Your task to perform on an android device: turn on javascript in the chrome app Image 0: 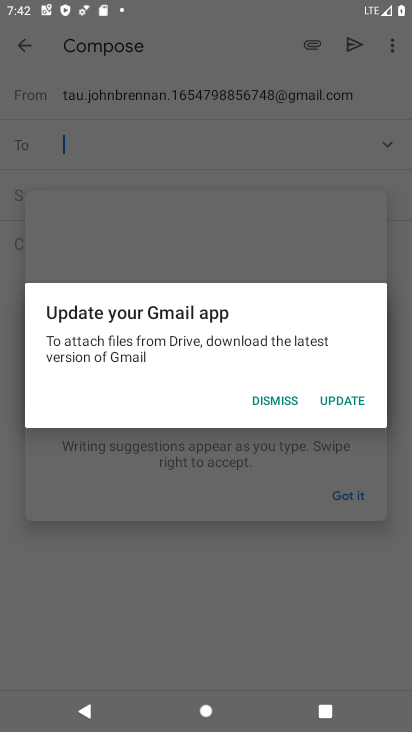
Step 0: press home button
Your task to perform on an android device: turn on javascript in the chrome app Image 1: 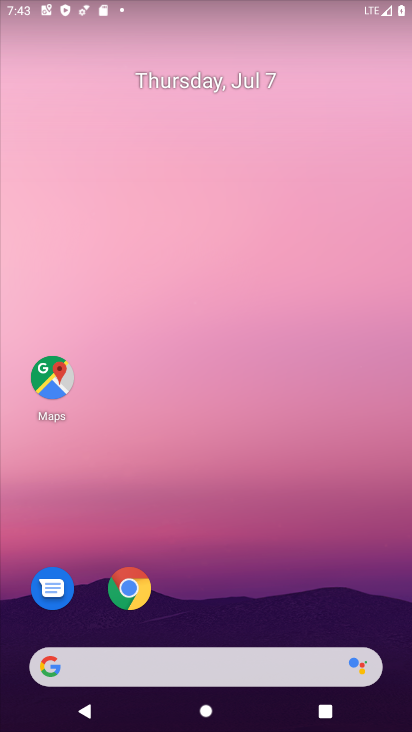
Step 1: drag from (239, 554) to (265, 155)
Your task to perform on an android device: turn on javascript in the chrome app Image 2: 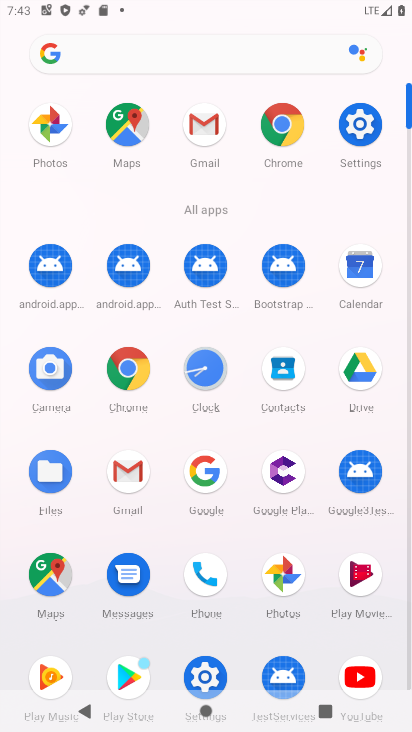
Step 2: click (282, 113)
Your task to perform on an android device: turn on javascript in the chrome app Image 3: 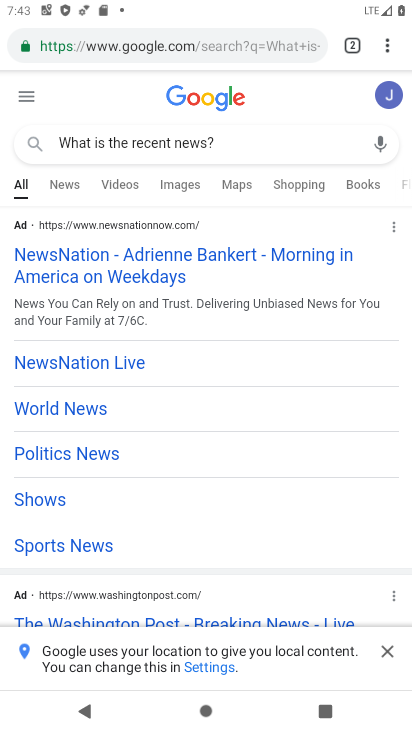
Step 3: click (392, 48)
Your task to perform on an android device: turn on javascript in the chrome app Image 4: 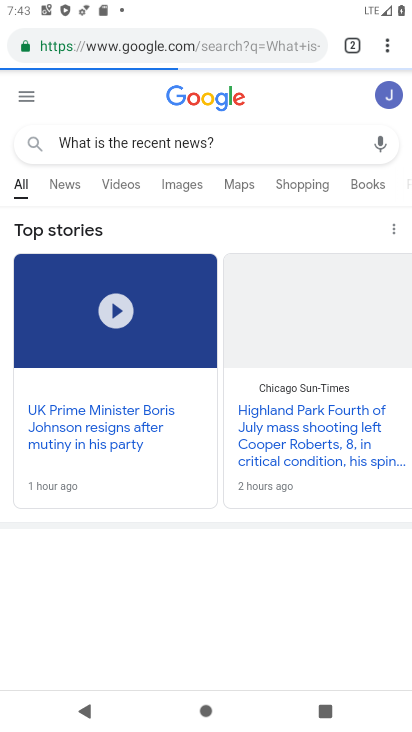
Step 4: click (398, 35)
Your task to perform on an android device: turn on javascript in the chrome app Image 5: 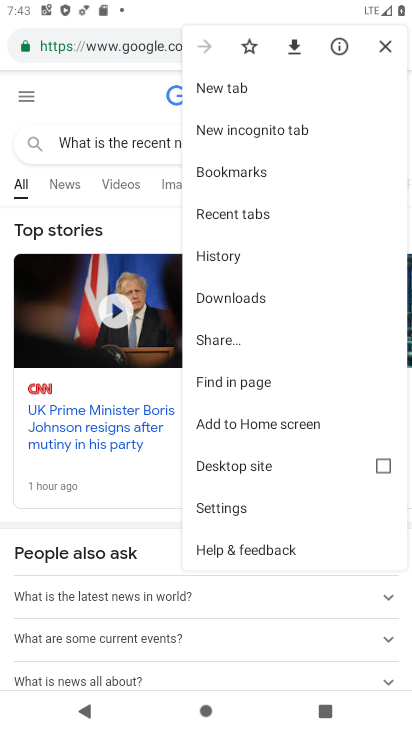
Step 5: click (250, 79)
Your task to perform on an android device: turn on javascript in the chrome app Image 6: 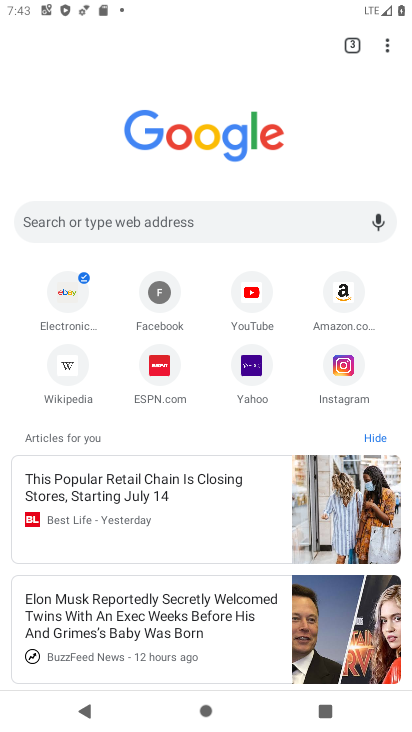
Step 6: click (386, 34)
Your task to perform on an android device: turn on javascript in the chrome app Image 7: 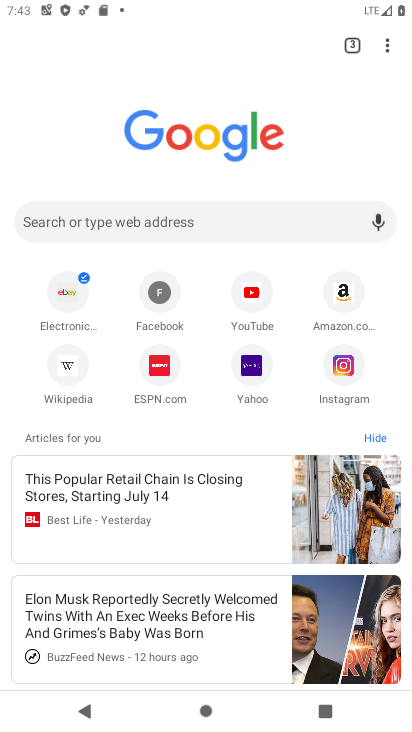
Step 7: click (385, 45)
Your task to perform on an android device: turn on javascript in the chrome app Image 8: 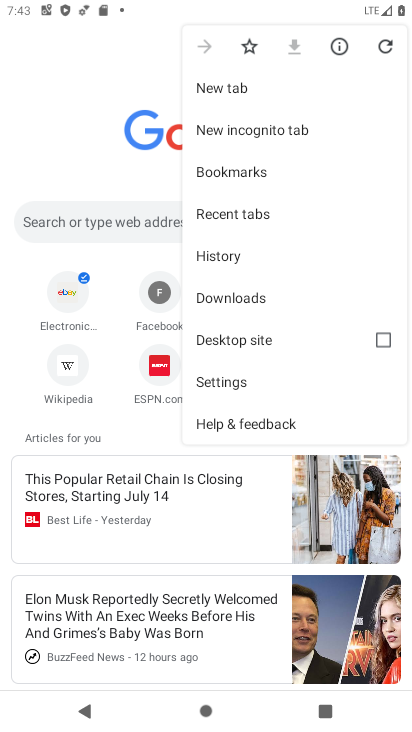
Step 8: click (245, 378)
Your task to perform on an android device: turn on javascript in the chrome app Image 9: 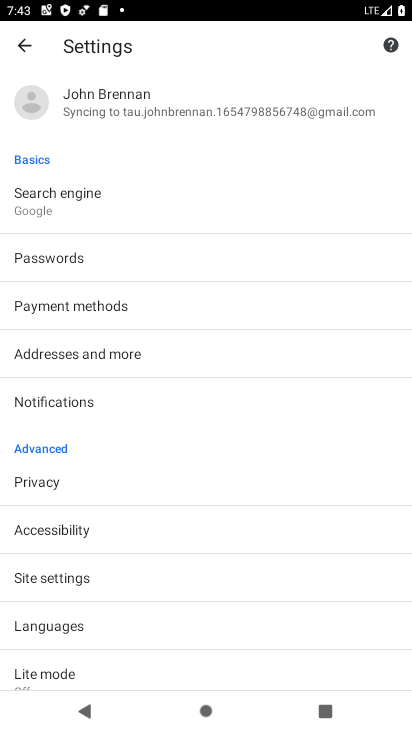
Step 9: click (74, 575)
Your task to perform on an android device: turn on javascript in the chrome app Image 10: 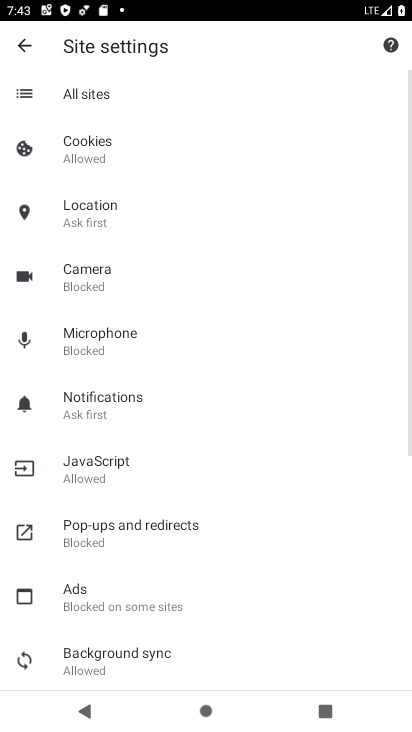
Step 10: click (157, 446)
Your task to perform on an android device: turn on javascript in the chrome app Image 11: 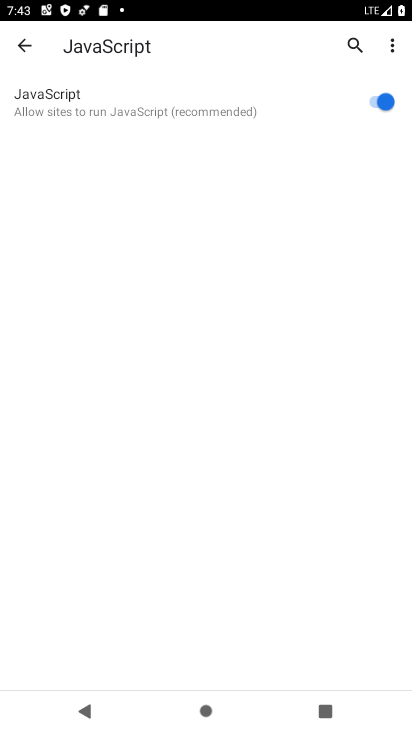
Step 11: task complete